Your task to perform on an android device: change keyboard looks Image 0: 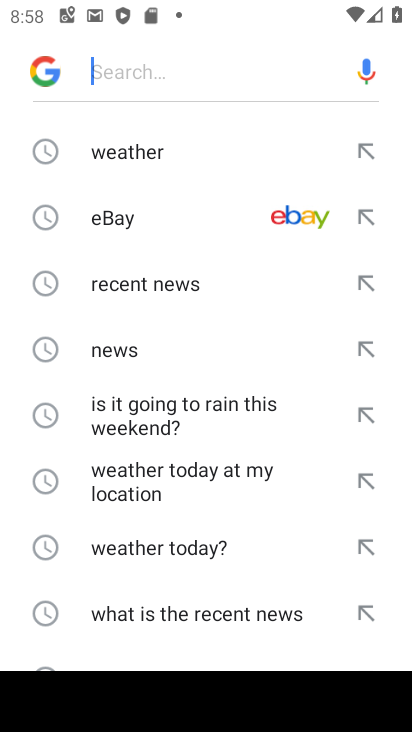
Step 0: press home button
Your task to perform on an android device: change keyboard looks Image 1: 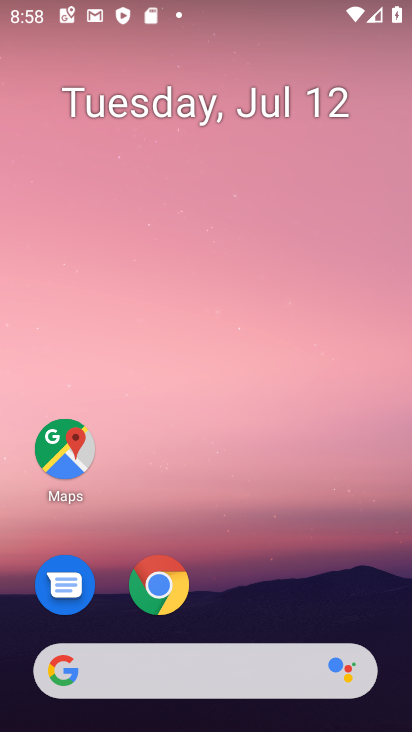
Step 1: drag from (260, 541) to (294, 35)
Your task to perform on an android device: change keyboard looks Image 2: 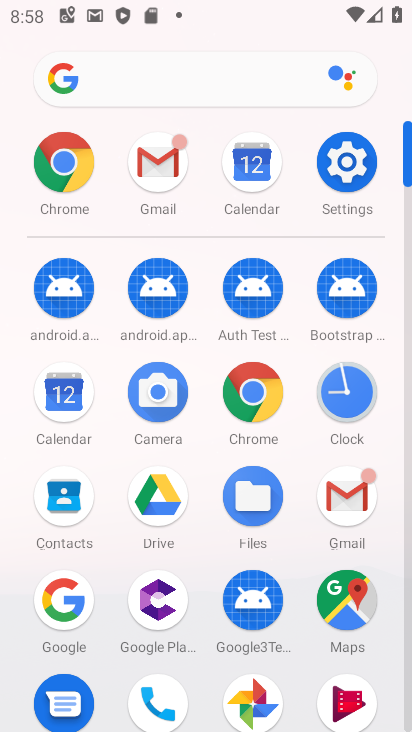
Step 2: click (355, 147)
Your task to perform on an android device: change keyboard looks Image 3: 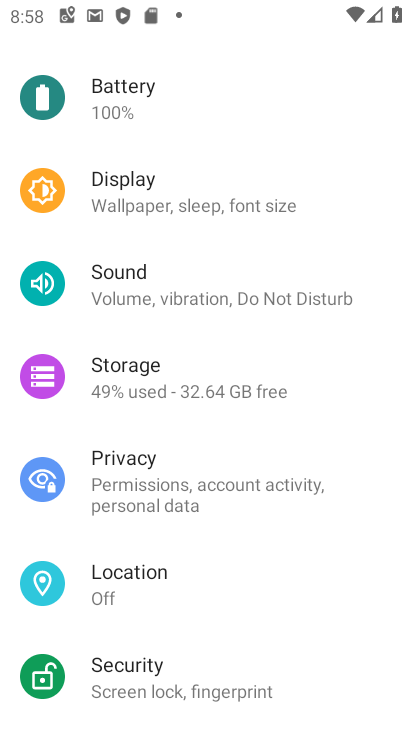
Step 3: drag from (175, 589) to (179, 110)
Your task to perform on an android device: change keyboard looks Image 4: 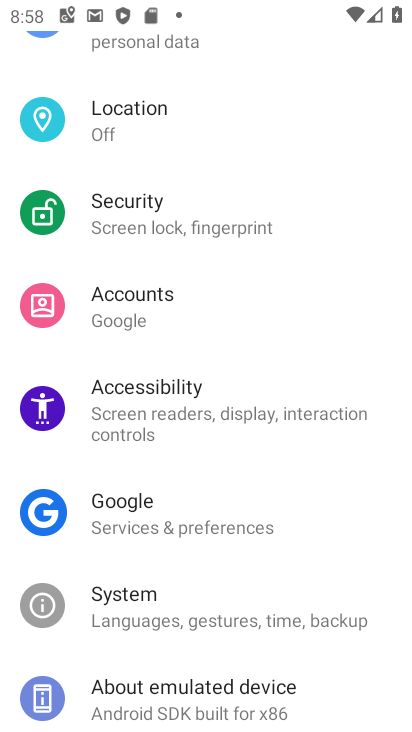
Step 4: click (190, 618)
Your task to perform on an android device: change keyboard looks Image 5: 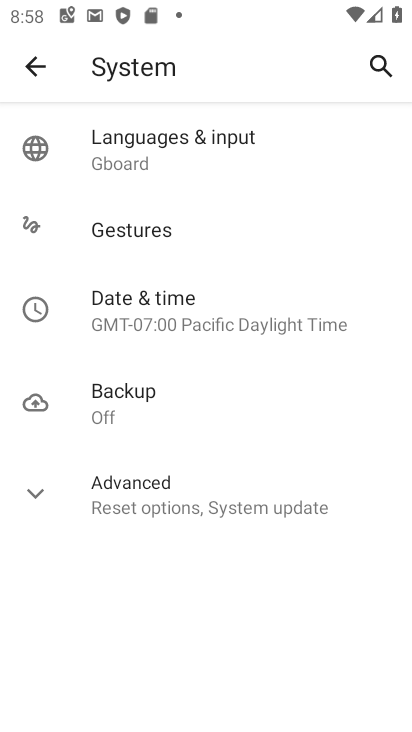
Step 5: click (179, 143)
Your task to perform on an android device: change keyboard looks Image 6: 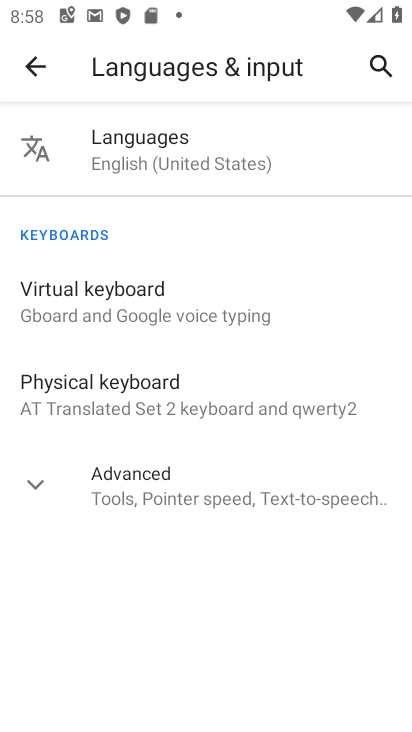
Step 6: click (168, 307)
Your task to perform on an android device: change keyboard looks Image 7: 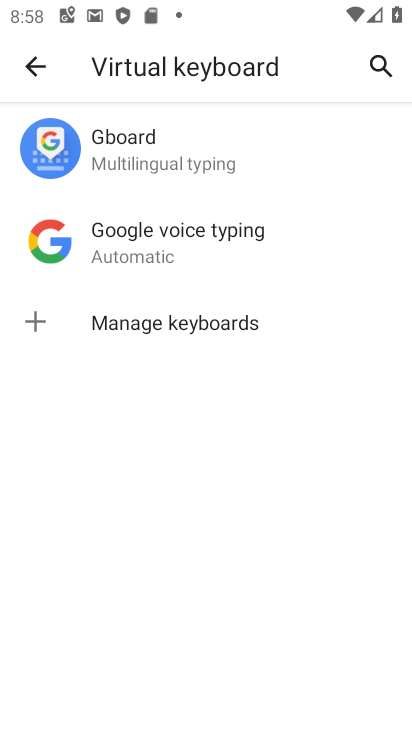
Step 7: click (181, 156)
Your task to perform on an android device: change keyboard looks Image 8: 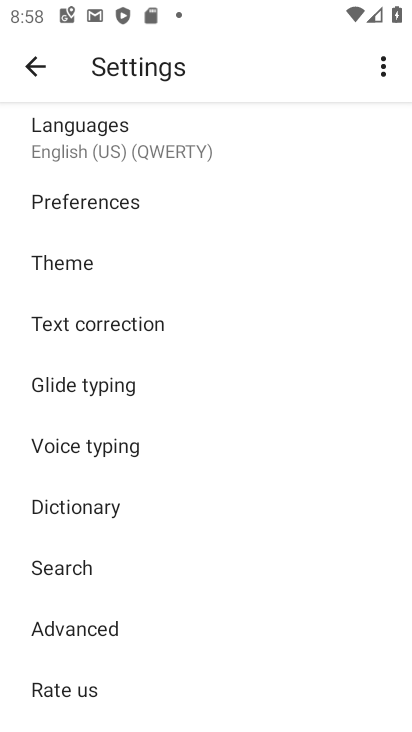
Step 8: click (87, 255)
Your task to perform on an android device: change keyboard looks Image 9: 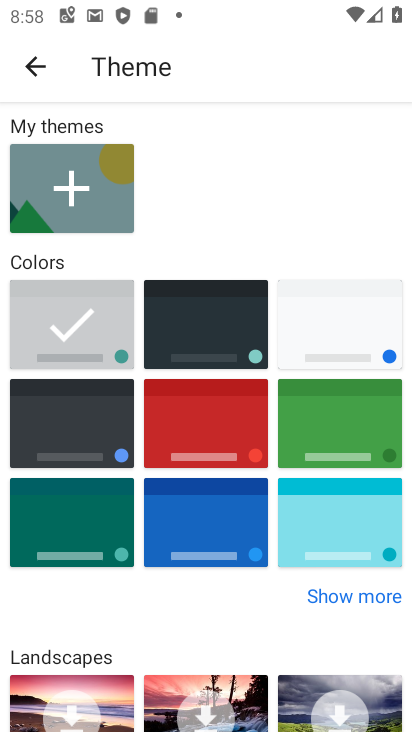
Step 9: click (210, 335)
Your task to perform on an android device: change keyboard looks Image 10: 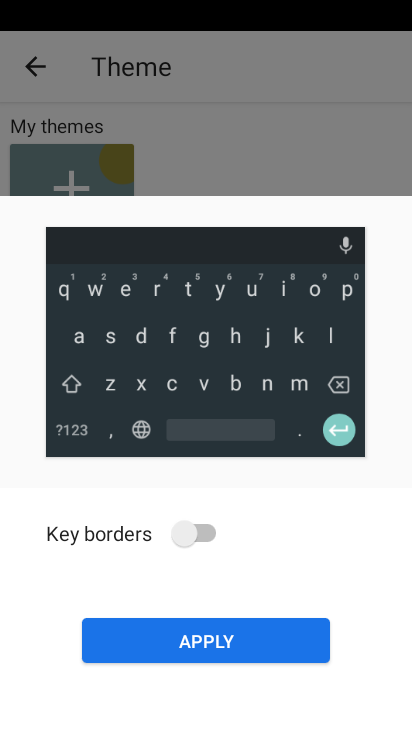
Step 10: click (207, 532)
Your task to perform on an android device: change keyboard looks Image 11: 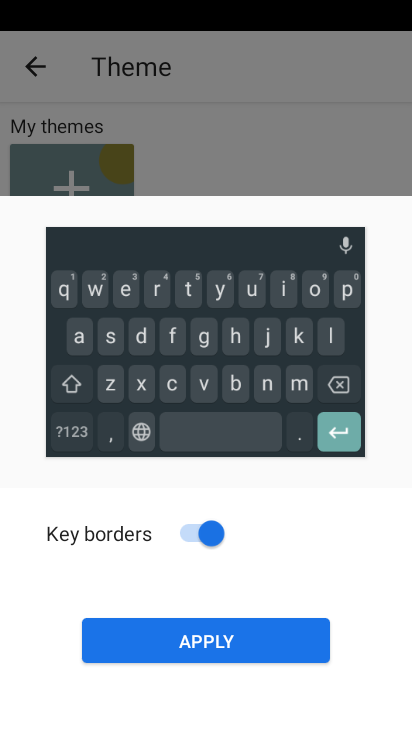
Step 11: click (224, 639)
Your task to perform on an android device: change keyboard looks Image 12: 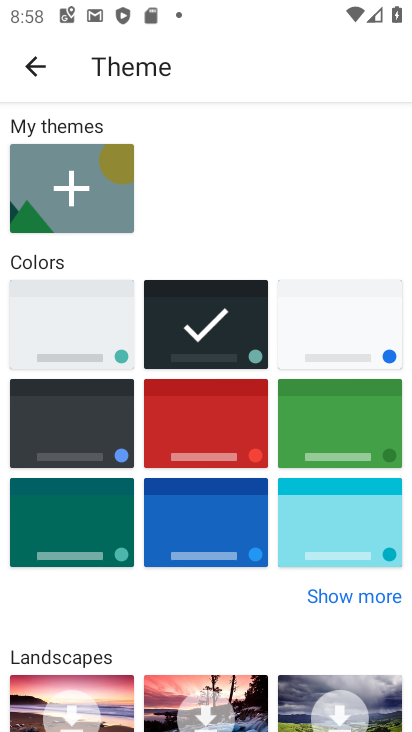
Step 12: task complete